Your task to perform on an android device: Open Google Image 0: 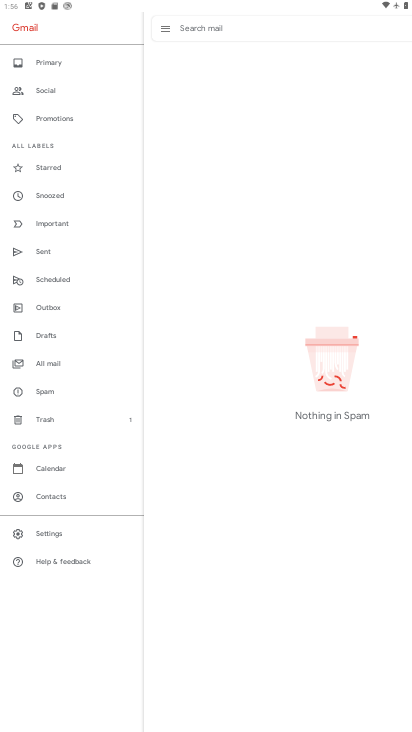
Step 0: press home button
Your task to perform on an android device: Open Google Image 1: 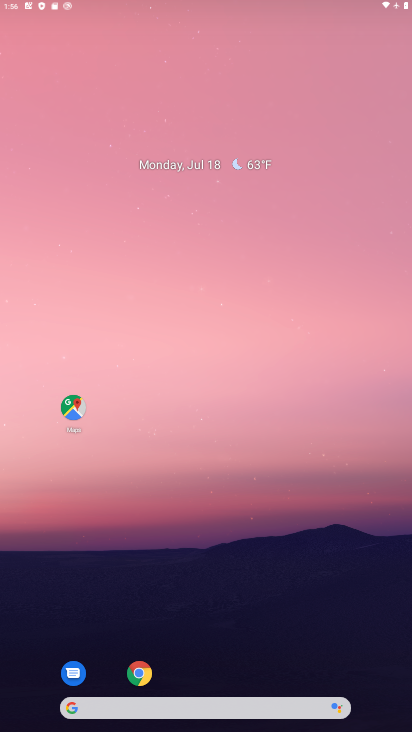
Step 1: drag from (150, 573) to (187, 129)
Your task to perform on an android device: Open Google Image 2: 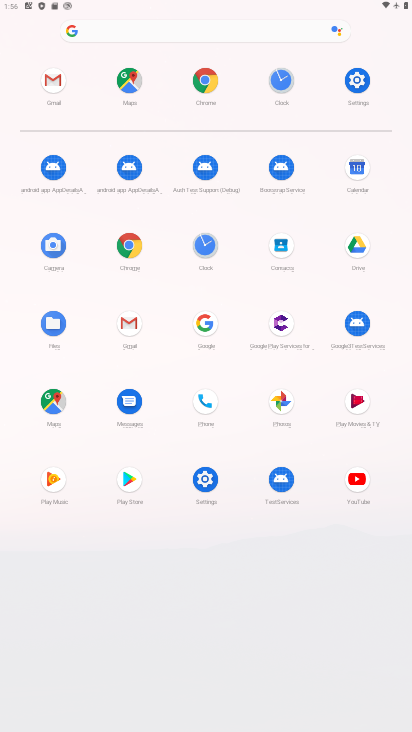
Step 2: click (211, 315)
Your task to perform on an android device: Open Google Image 3: 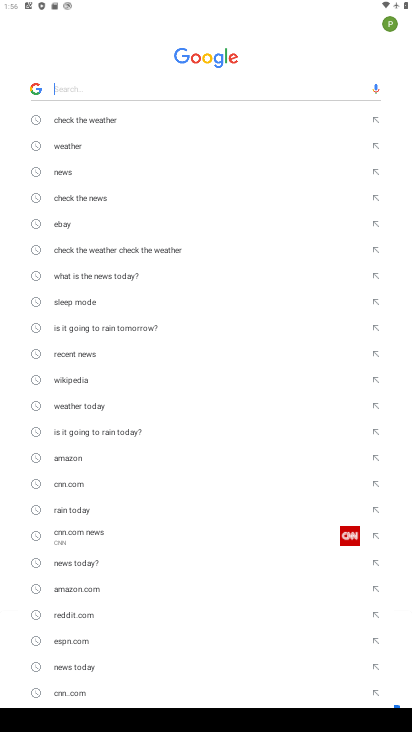
Step 3: task complete